Your task to perform on an android device: Open sound settings Image 0: 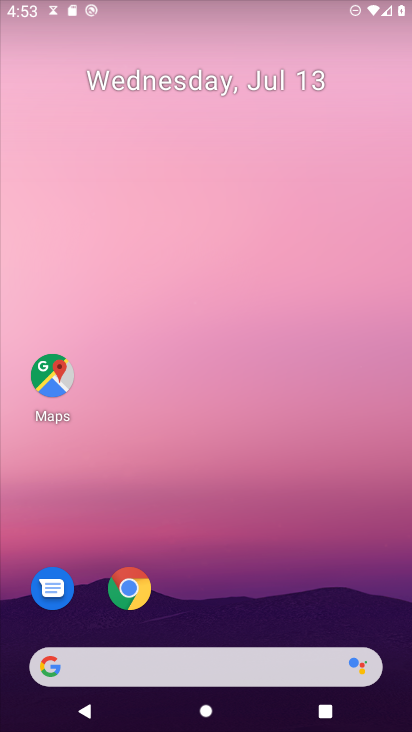
Step 0: press back button
Your task to perform on an android device: Open sound settings Image 1: 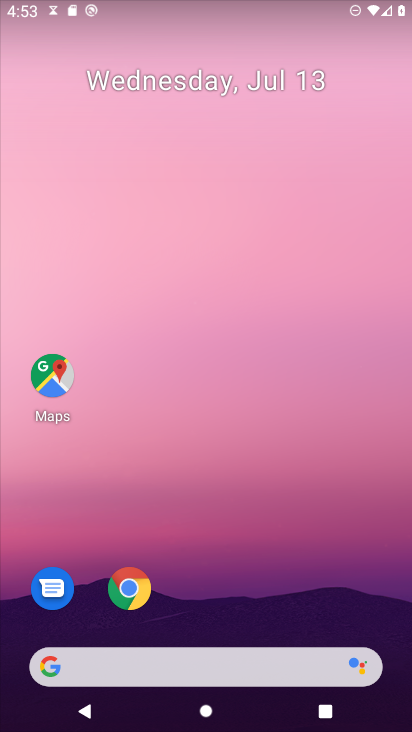
Step 1: drag from (254, 587) to (254, 306)
Your task to perform on an android device: Open sound settings Image 2: 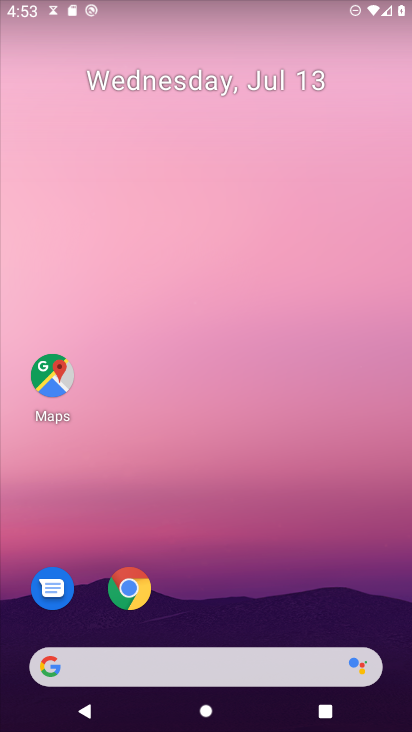
Step 2: drag from (267, 587) to (241, 116)
Your task to perform on an android device: Open sound settings Image 3: 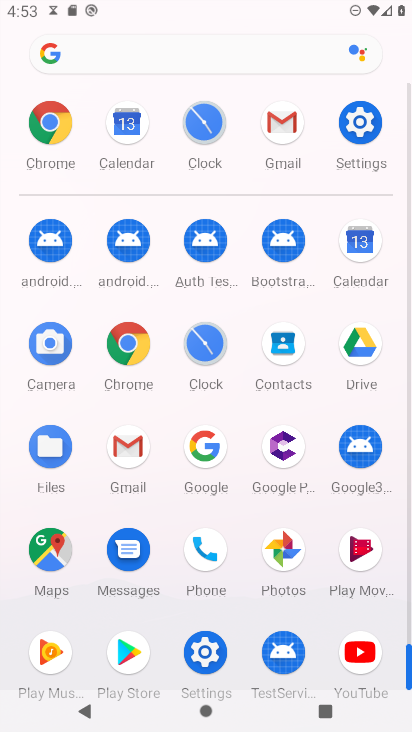
Step 3: click (203, 651)
Your task to perform on an android device: Open sound settings Image 4: 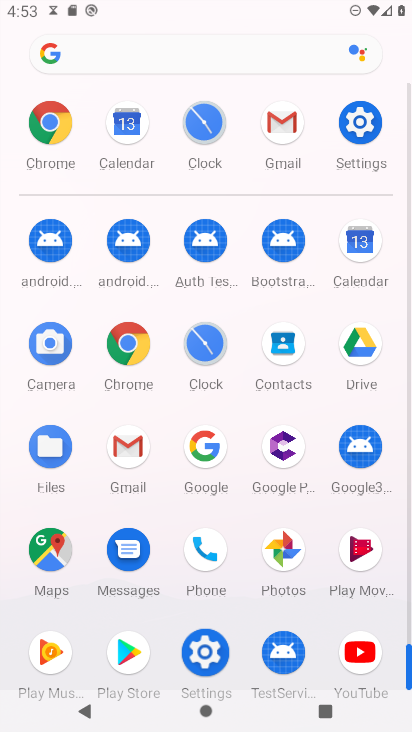
Step 4: click (203, 649)
Your task to perform on an android device: Open sound settings Image 5: 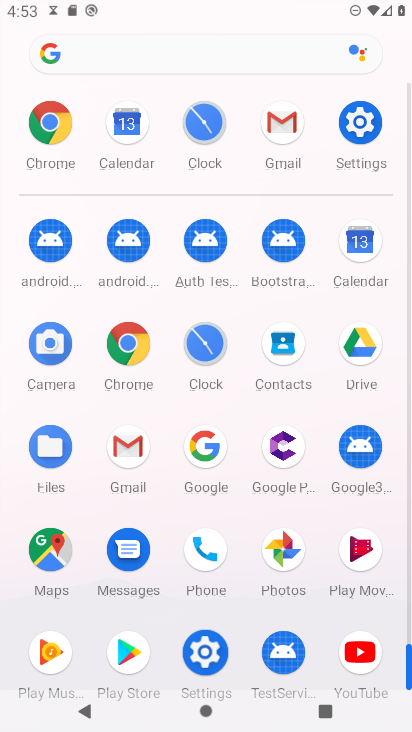
Step 5: click (204, 648)
Your task to perform on an android device: Open sound settings Image 6: 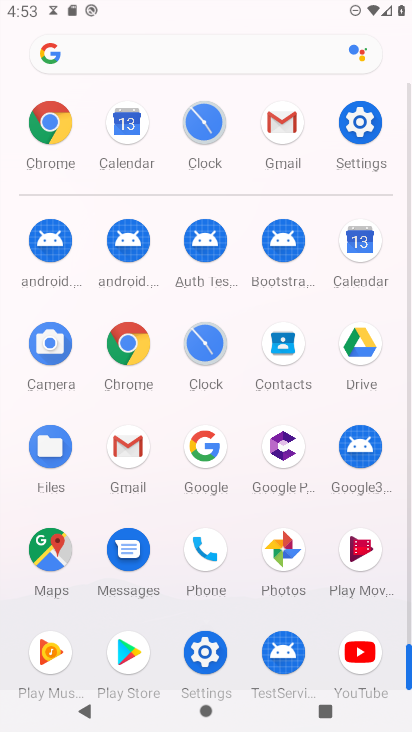
Step 6: click (204, 648)
Your task to perform on an android device: Open sound settings Image 7: 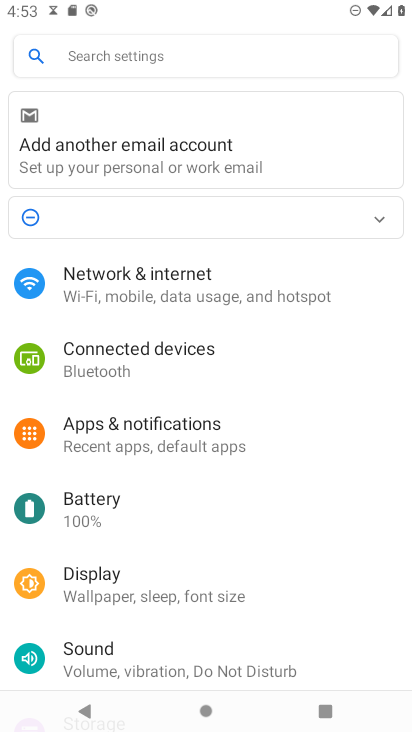
Step 7: click (100, 653)
Your task to perform on an android device: Open sound settings Image 8: 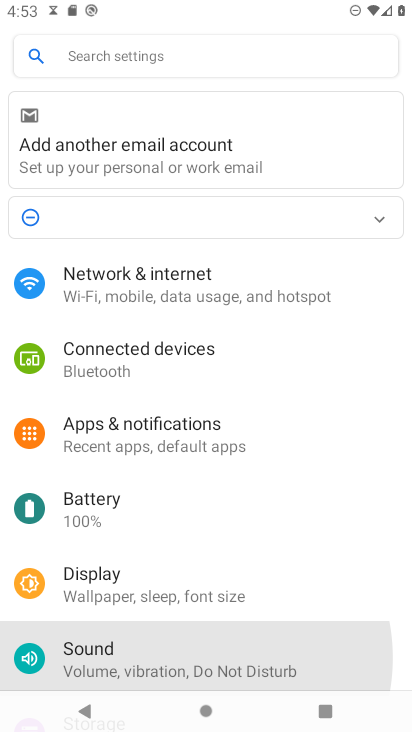
Step 8: click (83, 658)
Your task to perform on an android device: Open sound settings Image 9: 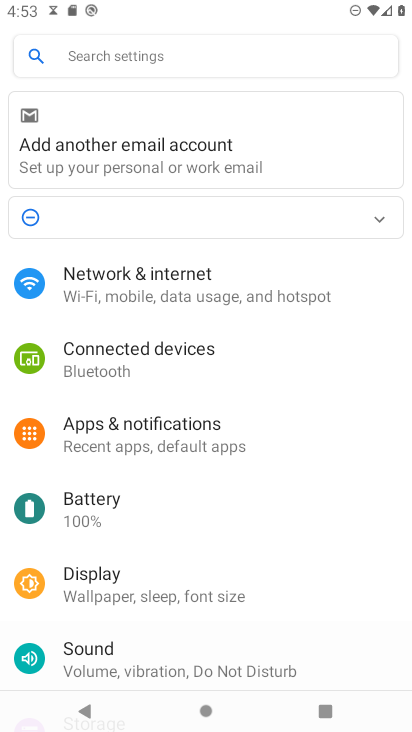
Step 9: click (83, 658)
Your task to perform on an android device: Open sound settings Image 10: 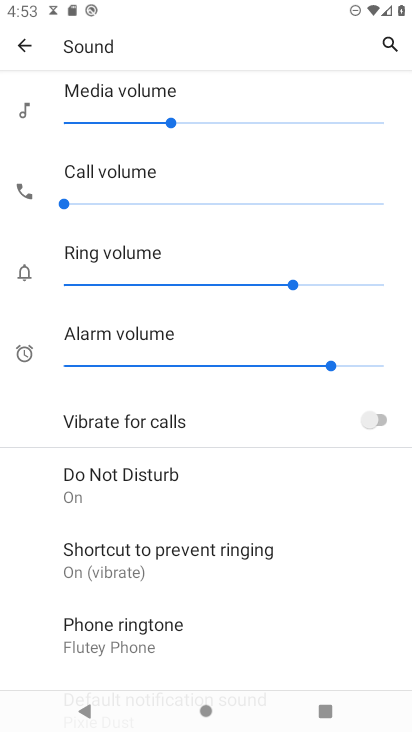
Step 10: task complete